Your task to perform on an android device: Turn on the flashlight Image 0: 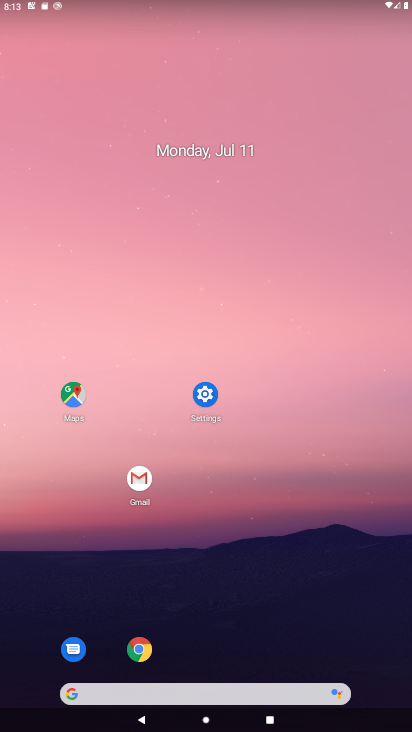
Step 0: click (196, 399)
Your task to perform on an android device: Turn on the flashlight Image 1: 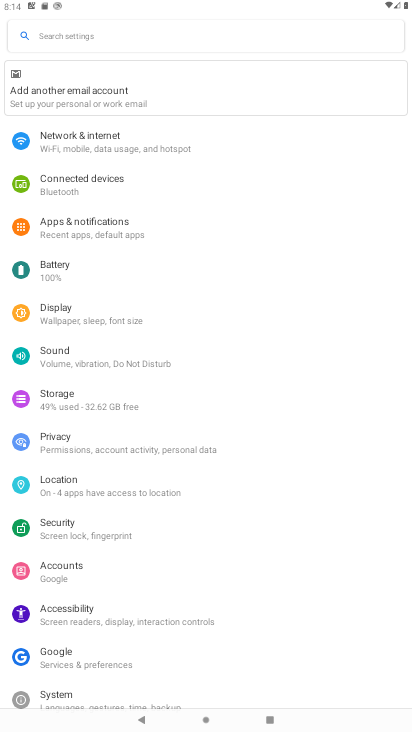
Step 1: click (83, 308)
Your task to perform on an android device: Turn on the flashlight Image 2: 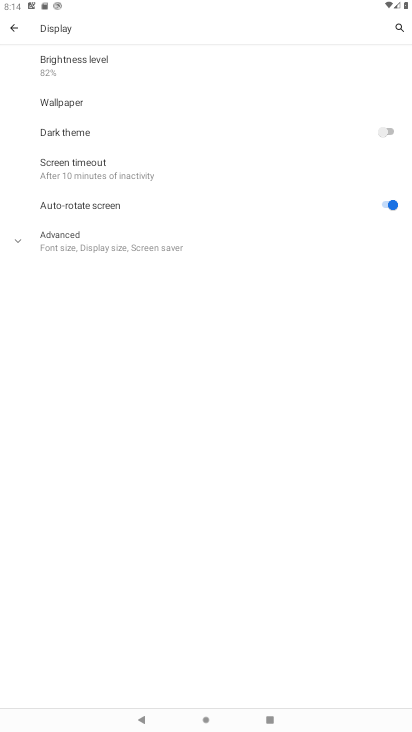
Step 2: click (9, 241)
Your task to perform on an android device: Turn on the flashlight Image 3: 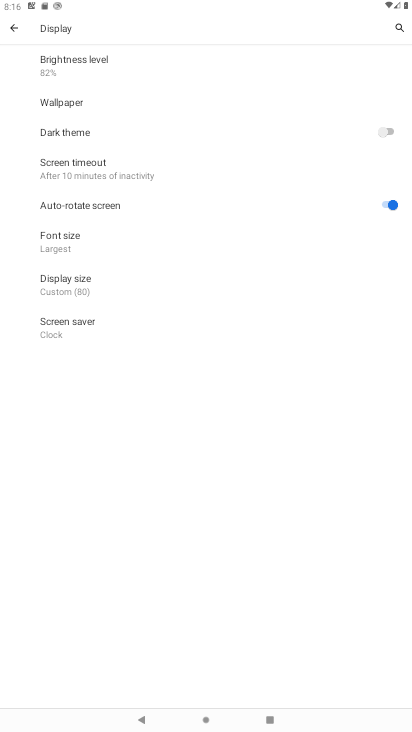
Step 3: task complete